Your task to perform on an android device: Open Chrome and go to the settings page Image 0: 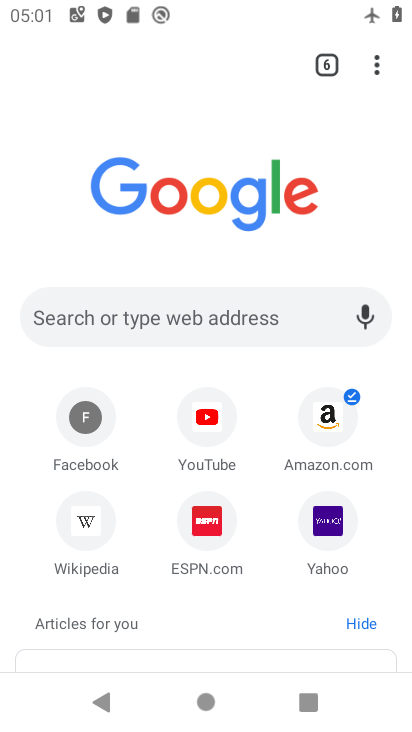
Step 0: click (376, 73)
Your task to perform on an android device: Open Chrome and go to the settings page Image 1: 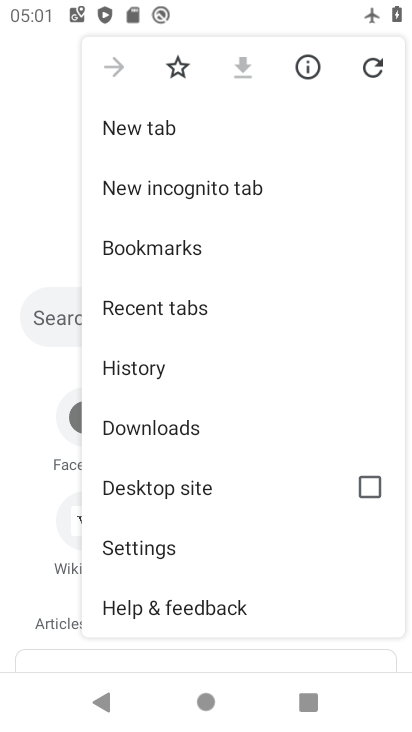
Step 1: click (135, 547)
Your task to perform on an android device: Open Chrome and go to the settings page Image 2: 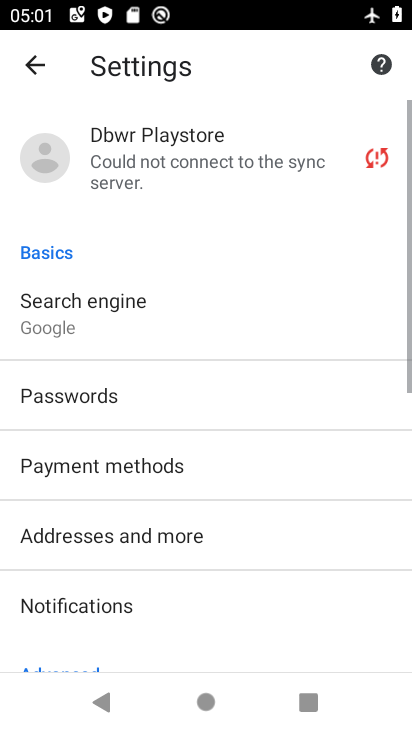
Step 2: task complete